Your task to perform on an android device: check the backup settings in the google photos Image 0: 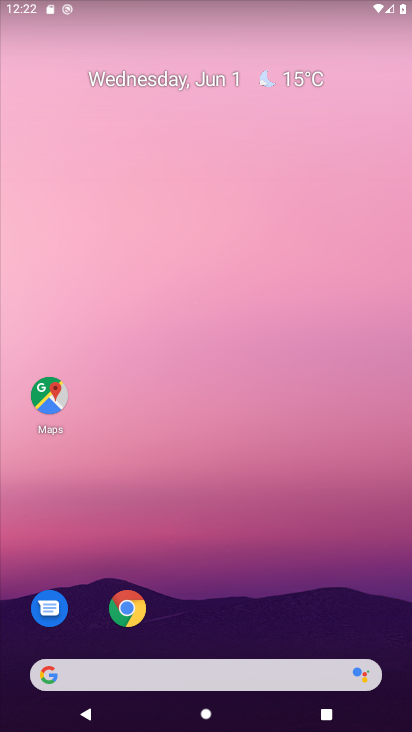
Step 0: drag from (220, 613) to (259, 227)
Your task to perform on an android device: check the backup settings in the google photos Image 1: 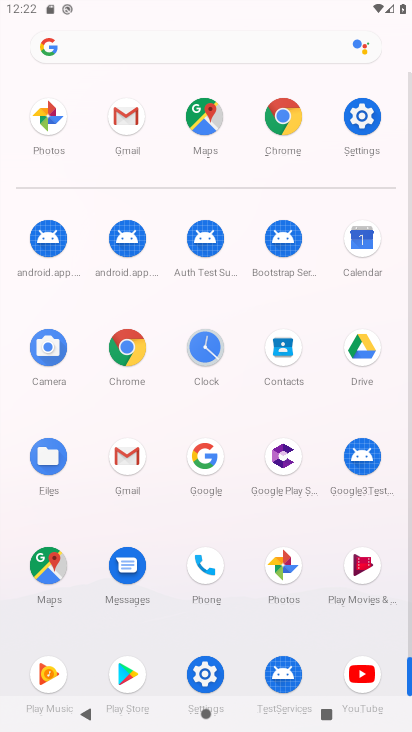
Step 1: click (286, 578)
Your task to perform on an android device: check the backup settings in the google photos Image 2: 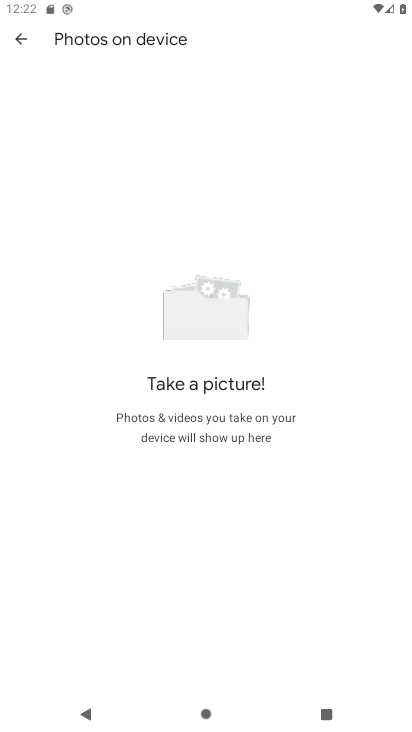
Step 2: click (15, 38)
Your task to perform on an android device: check the backup settings in the google photos Image 3: 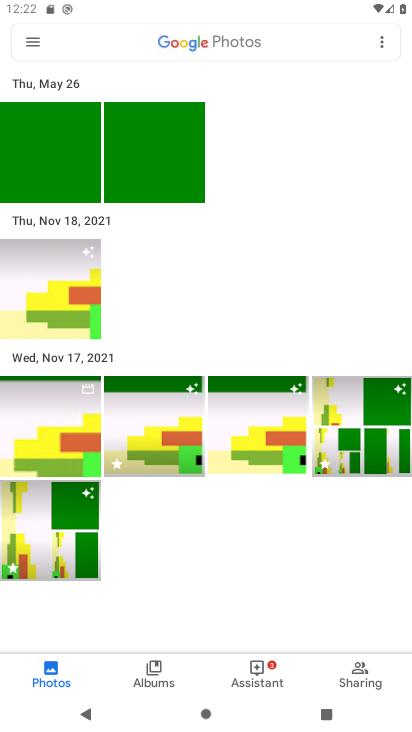
Step 3: click (27, 38)
Your task to perform on an android device: check the backup settings in the google photos Image 4: 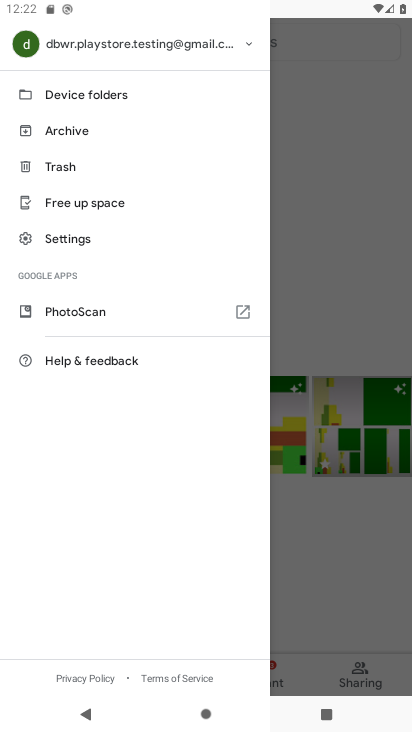
Step 4: click (90, 245)
Your task to perform on an android device: check the backup settings in the google photos Image 5: 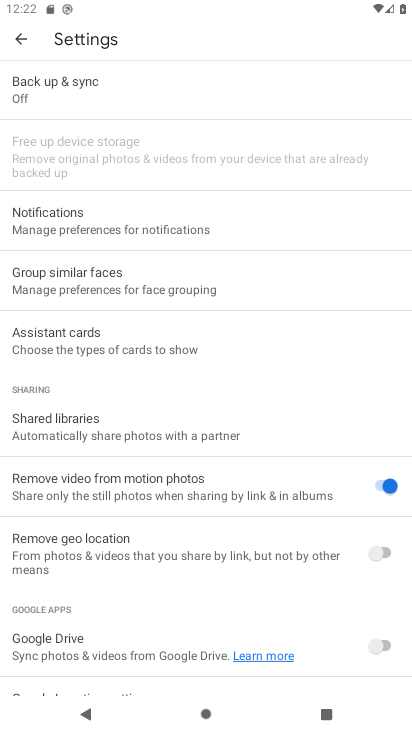
Step 5: click (120, 83)
Your task to perform on an android device: check the backup settings in the google photos Image 6: 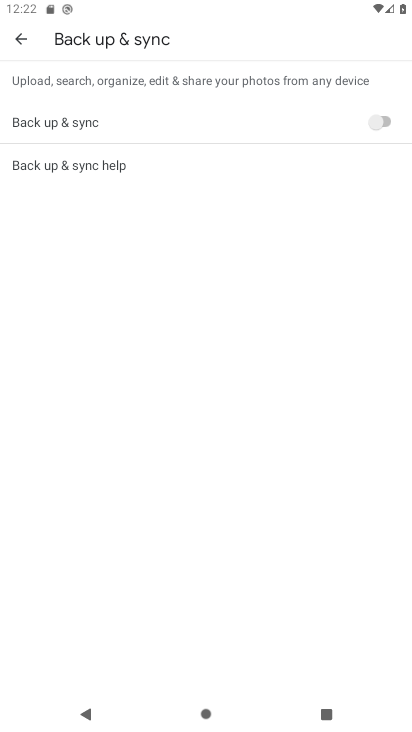
Step 6: click (378, 113)
Your task to perform on an android device: check the backup settings in the google photos Image 7: 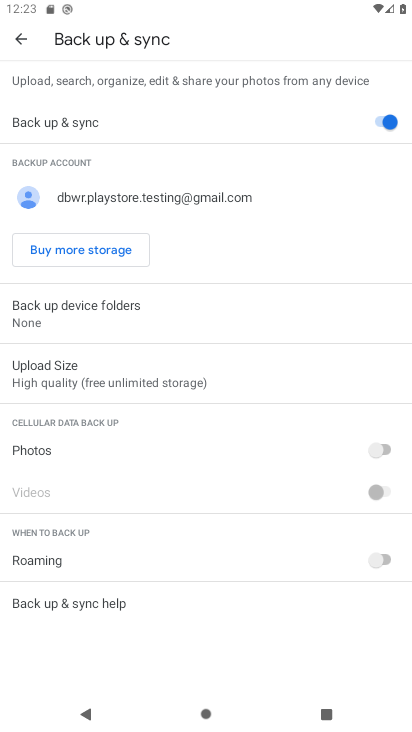
Step 7: task complete